Your task to perform on an android device: Open Youtube and go to "Your channel" Image 0: 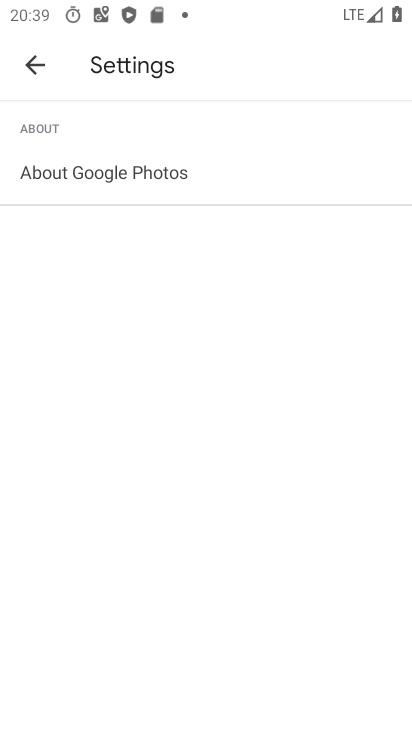
Step 0: press home button
Your task to perform on an android device: Open Youtube and go to "Your channel" Image 1: 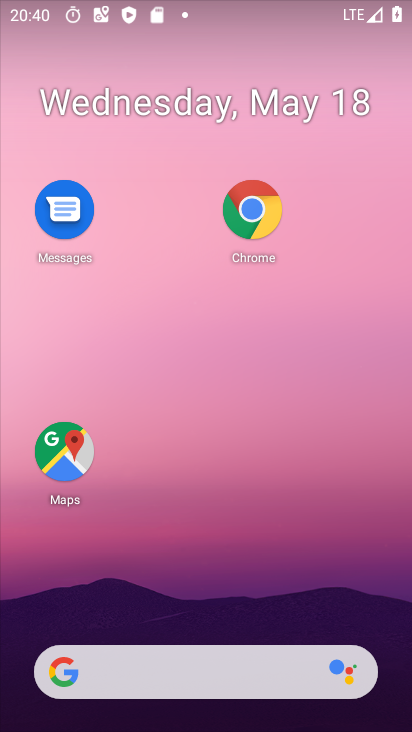
Step 1: drag from (164, 637) to (253, 5)
Your task to perform on an android device: Open Youtube and go to "Your channel" Image 2: 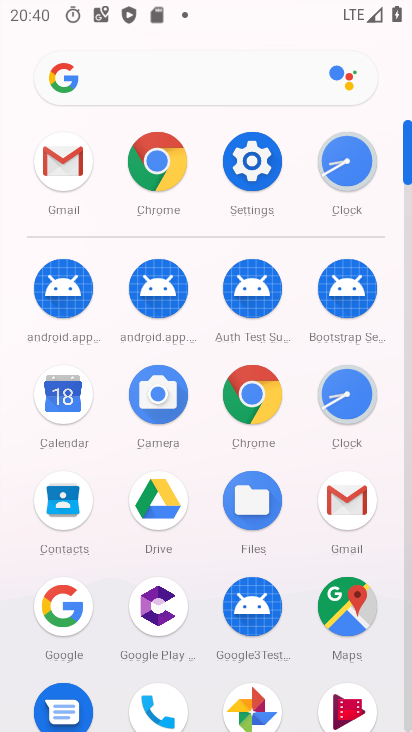
Step 2: drag from (199, 678) to (258, 224)
Your task to perform on an android device: Open Youtube and go to "Your channel" Image 3: 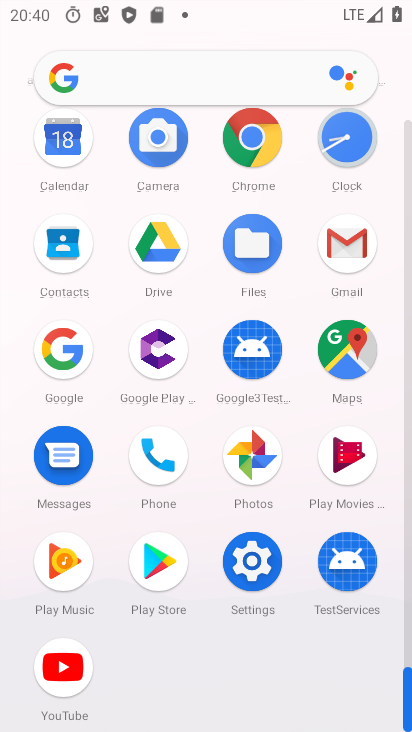
Step 3: click (51, 650)
Your task to perform on an android device: Open Youtube and go to "Your channel" Image 4: 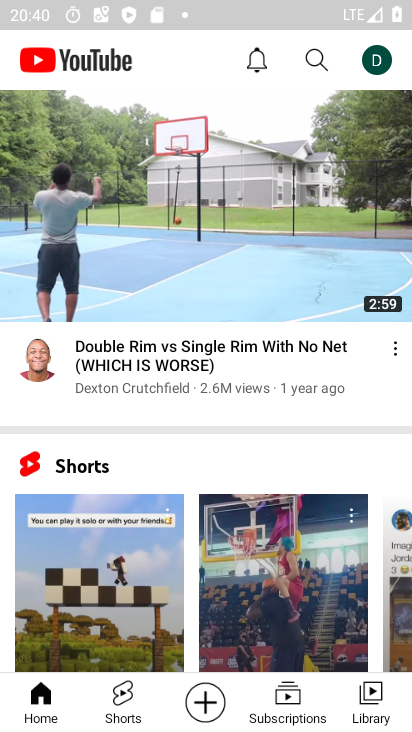
Step 4: click (328, 48)
Your task to perform on an android device: Open Youtube and go to "Your channel" Image 5: 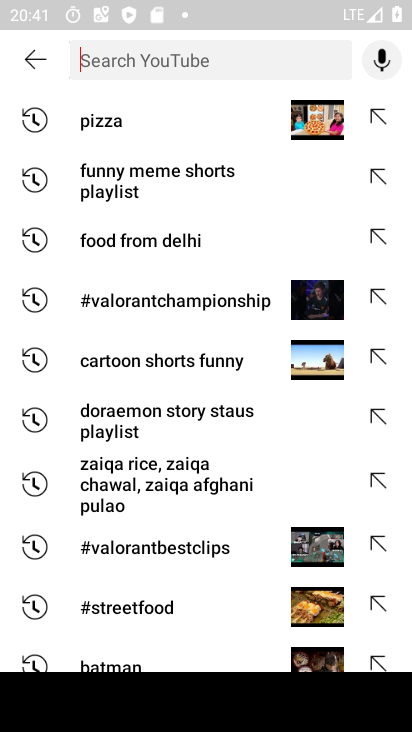
Step 5: type "your channel"
Your task to perform on an android device: Open Youtube and go to "Your channel" Image 6: 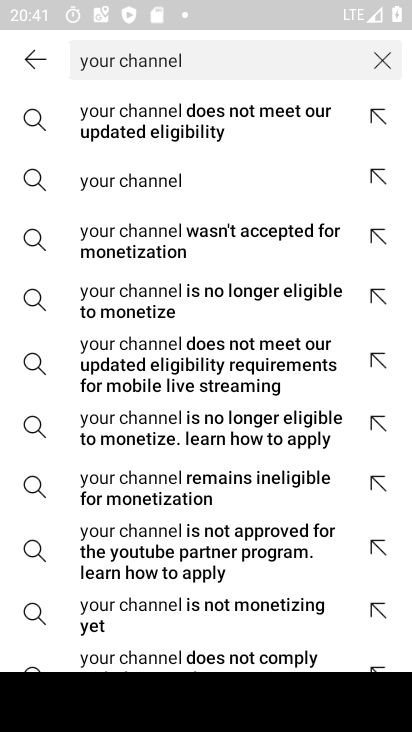
Step 6: click (164, 194)
Your task to perform on an android device: Open Youtube and go to "Your channel" Image 7: 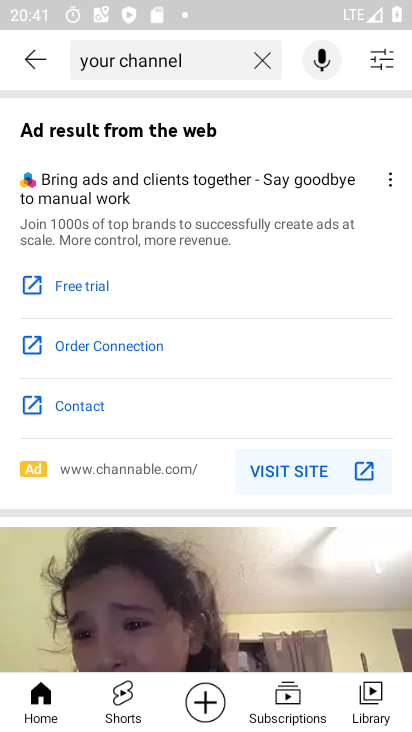
Step 7: task complete